Your task to perform on an android device: allow cookies in the chrome app Image 0: 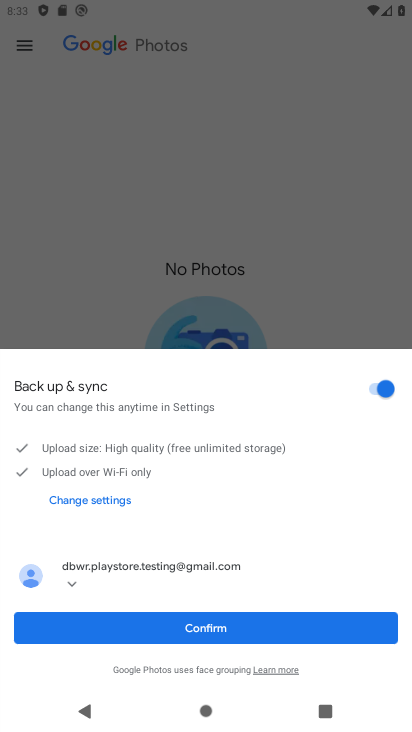
Step 0: click (283, 633)
Your task to perform on an android device: allow cookies in the chrome app Image 1: 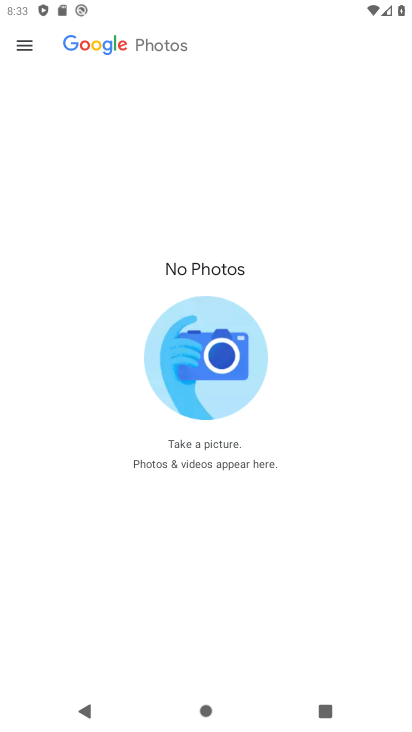
Step 1: press home button
Your task to perform on an android device: allow cookies in the chrome app Image 2: 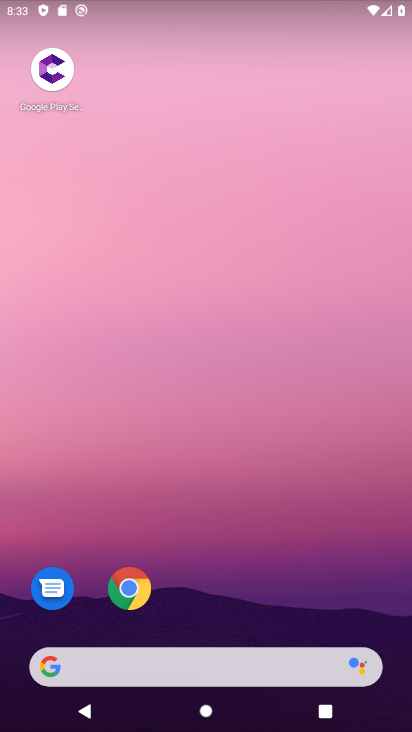
Step 2: click (116, 592)
Your task to perform on an android device: allow cookies in the chrome app Image 3: 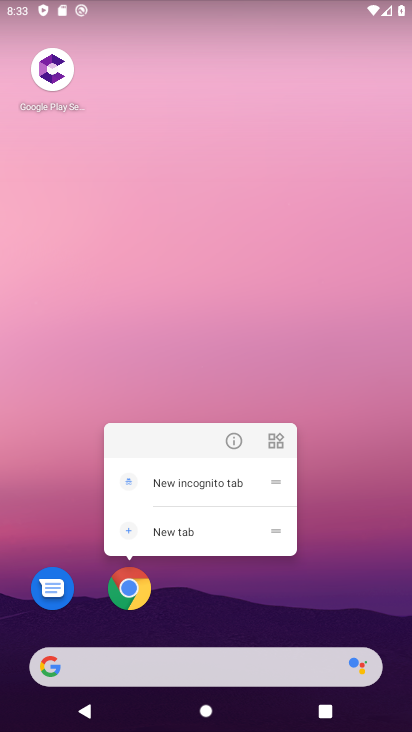
Step 3: click (124, 600)
Your task to perform on an android device: allow cookies in the chrome app Image 4: 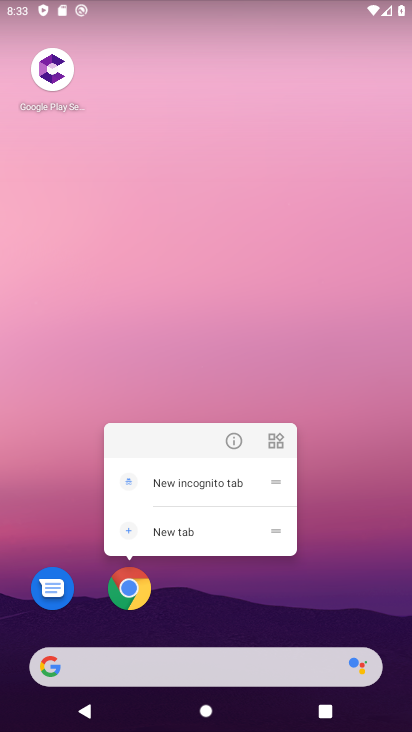
Step 4: click (124, 600)
Your task to perform on an android device: allow cookies in the chrome app Image 5: 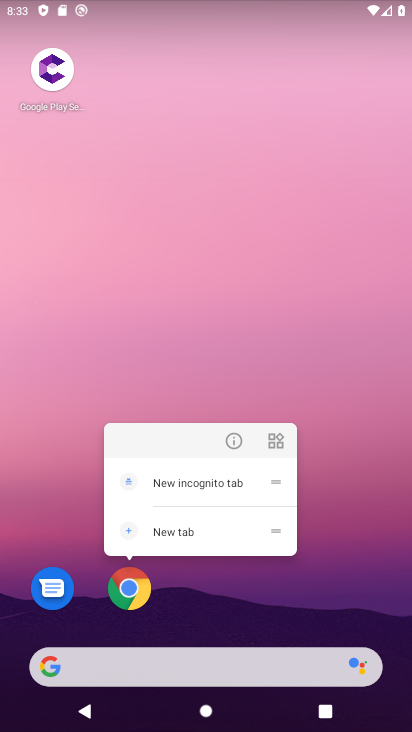
Step 5: click (124, 600)
Your task to perform on an android device: allow cookies in the chrome app Image 6: 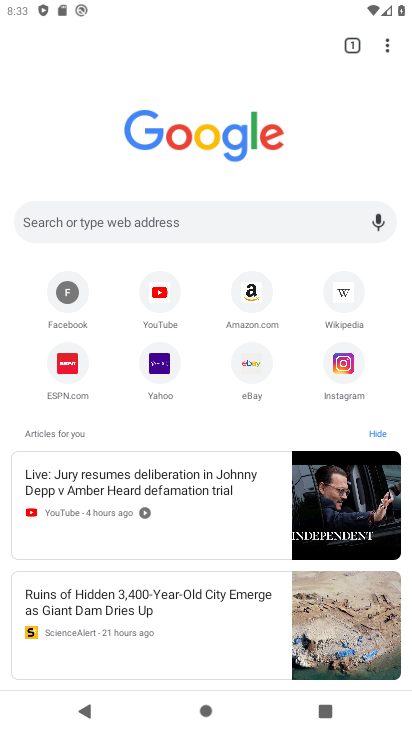
Step 6: click (385, 41)
Your task to perform on an android device: allow cookies in the chrome app Image 7: 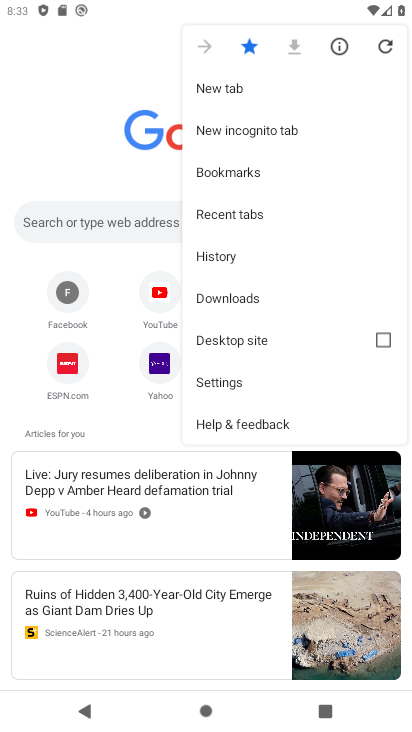
Step 7: click (271, 385)
Your task to perform on an android device: allow cookies in the chrome app Image 8: 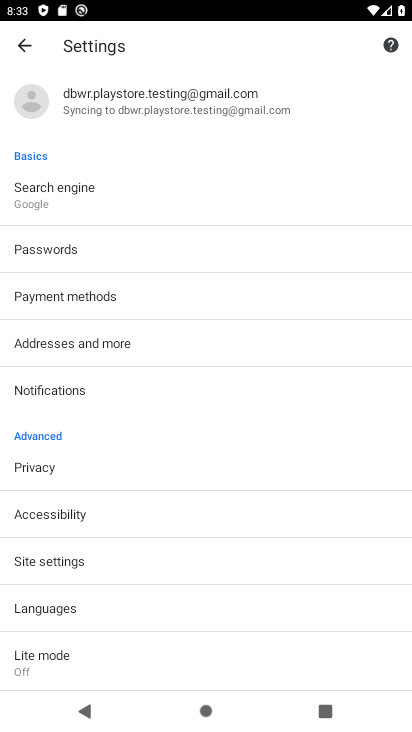
Step 8: click (99, 565)
Your task to perform on an android device: allow cookies in the chrome app Image 9: 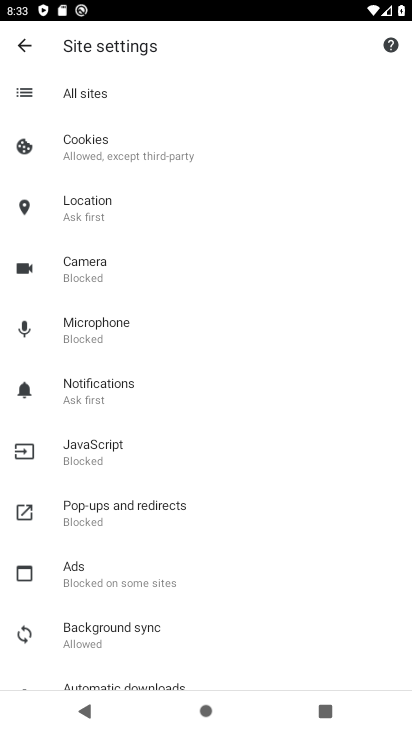
Step 9: click (106, 151)
Your task to perform on an android device: allow cookies in the chrome app Image 10: 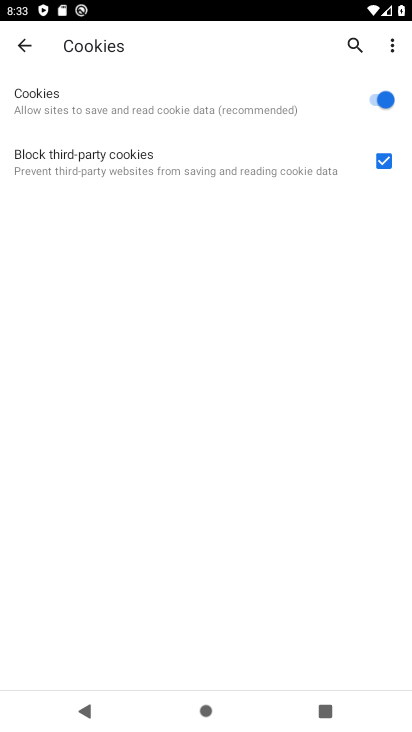
Step 10: task complete